Your task to perform on an android device: read, delete, or share a saved page in the chrome app Image 0: 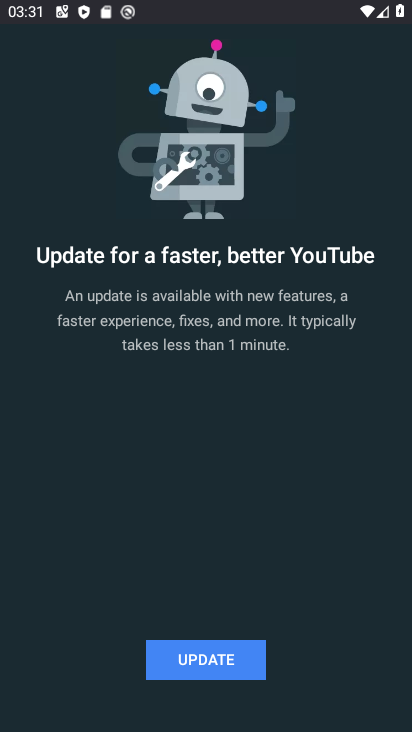
Step 0: drag from (356, 623) to (147, 33)
Your task to perform on an android device: read, delete, or share a saved page in the chrome app Image 1: 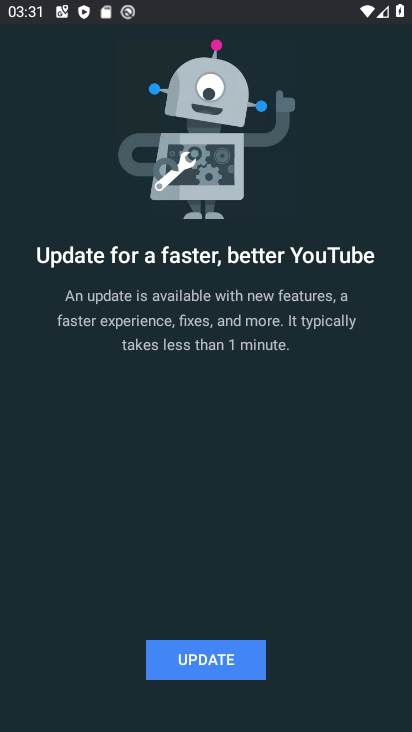
Step 1: press home button
Your task to perform on an android device: read, delete, or share a saved page in the chrome app Image 2: 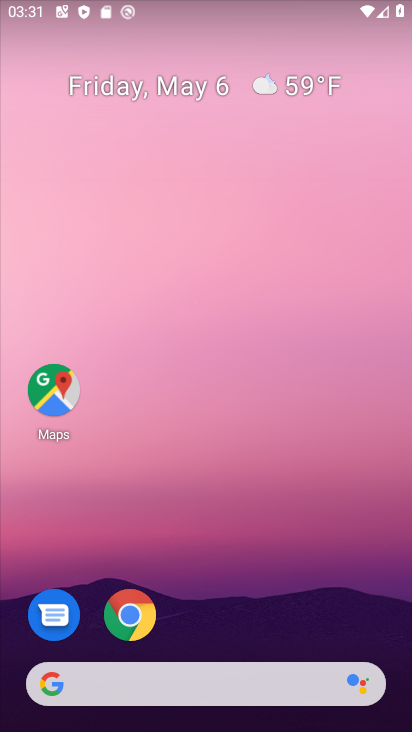
Step 2: drag from (337, 633) to (175, 189)
Your task to perform on an android device: read, delete, or share a saved page in the chrome app Image 3: 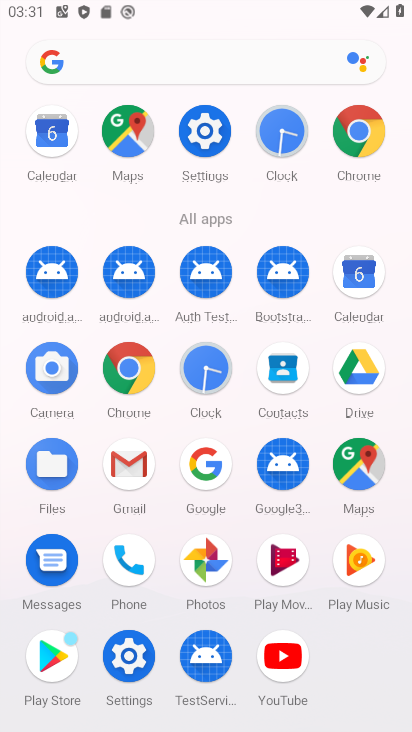
Step 3: click (369, 135)
Your task to perform on an android device: read, delete, or share a saved page in the chrome app Image 4: 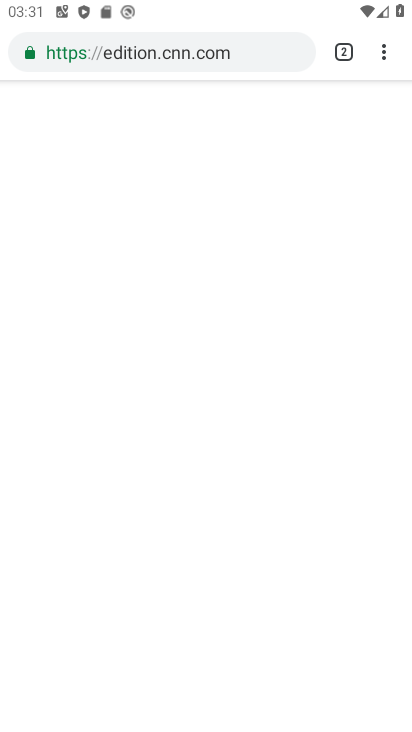
Step 4: drag from (376, 46) to (203, 328)
Your task to perform on an android device: read, delete, or share a saved page in the chrome app Image 5: 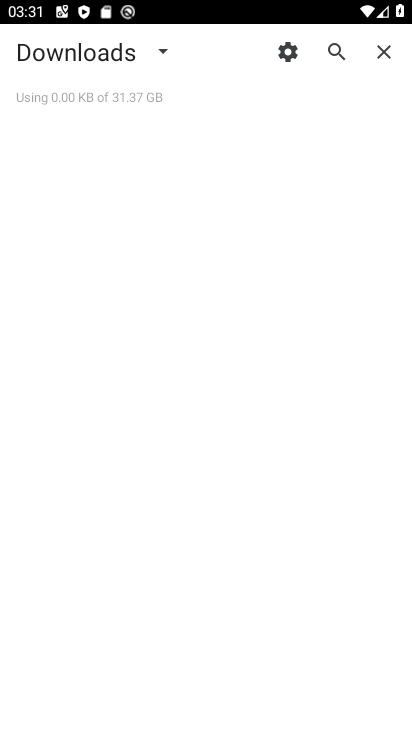
Step 5: click (155, 50)
Your task to perform on an android device: read, delete, or share a saved page in the chrome app Image 6: 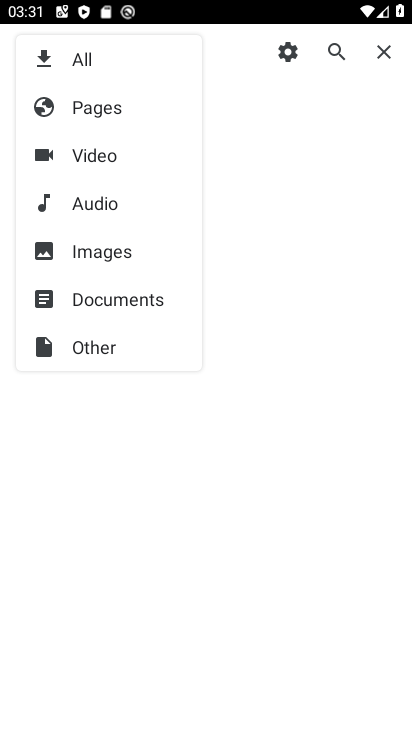
Step 6: click (94, 113)
Your task to perform on an android device: read, delete, or share a saved page in the chrome app Image 7: 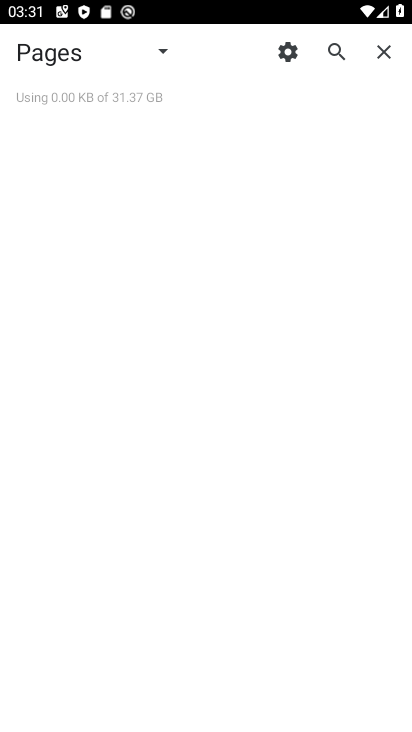
Step 7: task complete